Your task to perform on an android device: Open the calendar and show me this week's events? Image 0: 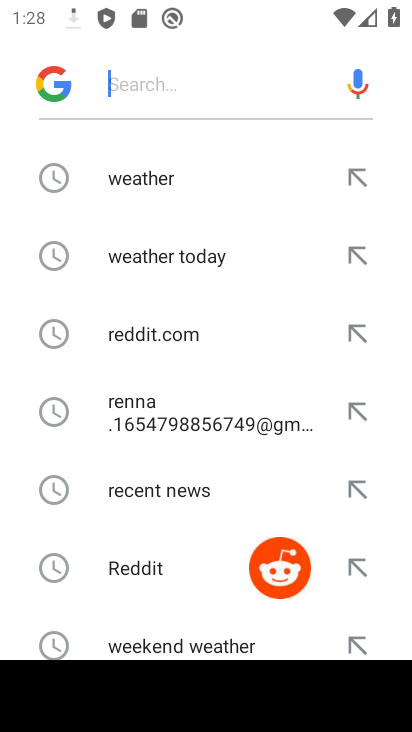
Step 0: press home button
Your task to perform on an android device: Open the calendar and show me this week's events? Image 1: 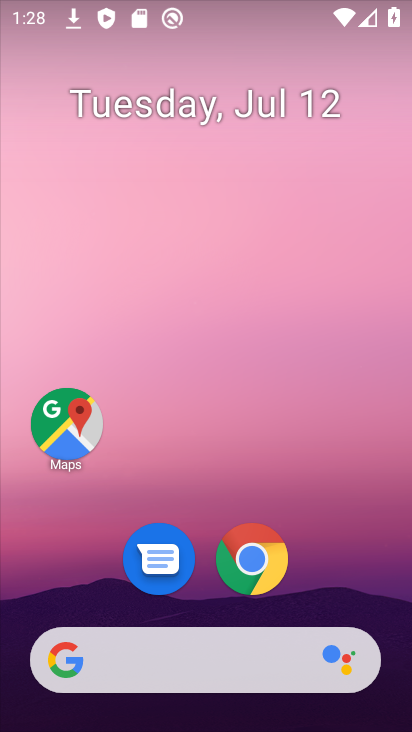
Step 1: drag from (347, 577) to (350, 150)
Your task to perform on an android device: Open the calendar and show me this week's events? Image 2: 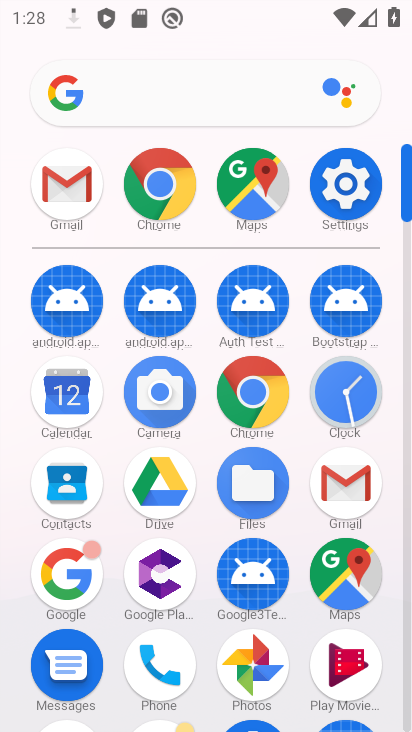
Step 2: click (72, 400)
Your task to perform on an android device: Open the calendar and show me this week's events? Image 3: 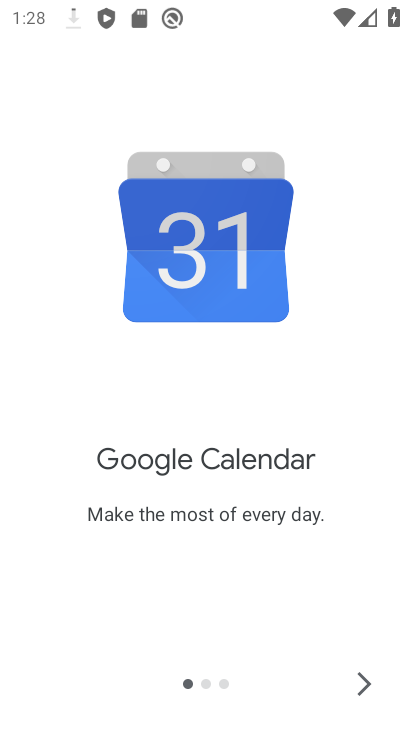
Step 3: click (358, 679)
Your task to perform on an android device: Open the calendar and show me this week's events? Image 4: 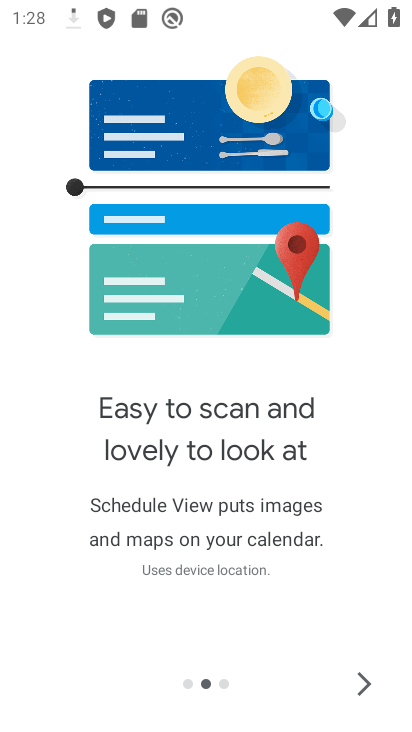
Step 4: click (359, 684)
Your task to perform on an android device: Open the calendar and show me this week's events? Image 5: 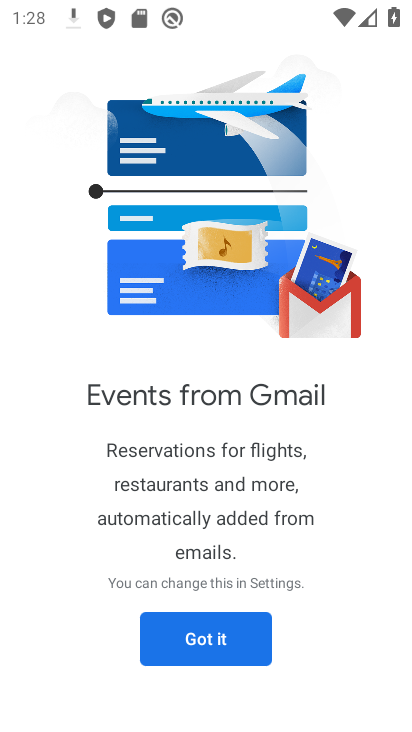
Step 5: click (235, 638)
Your task to perform on an android device: Open the calendar and show me this week's events? Image 6: 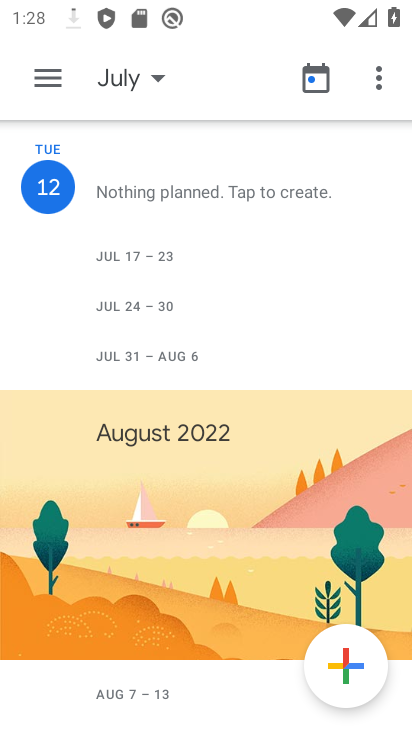
Step 6: task complete